Your task to perform on an android device: Turn off the flashlight Image 0: 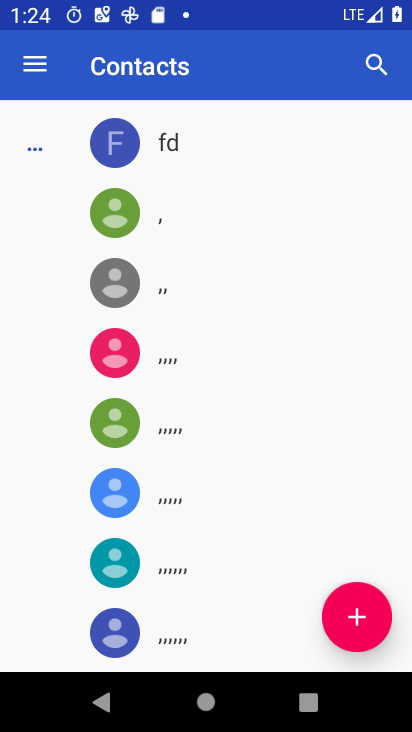
Step 0: press home button
Your task to perform on an android device: Turn off the flashlight Image 1: 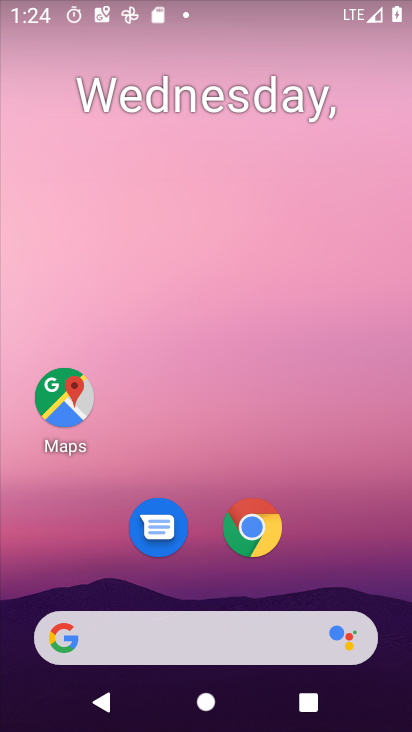
Step 1: task complete